Your task to perform on an android device: turn off improve location accuracy Image 0: 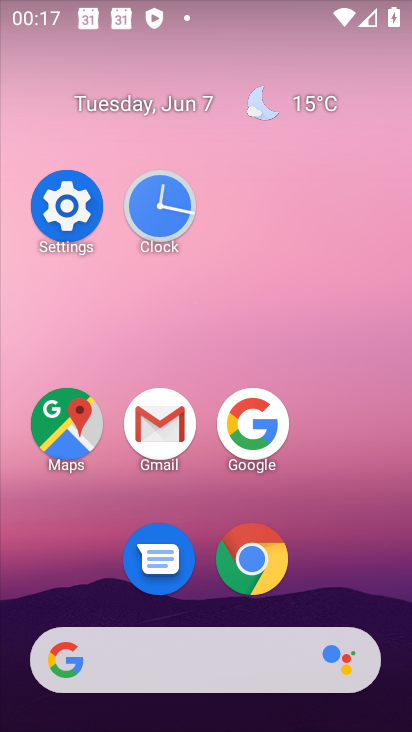
Step 0: click (36, 210)
Your task to perform on an android device: turn off improve location accuracy Image 1: 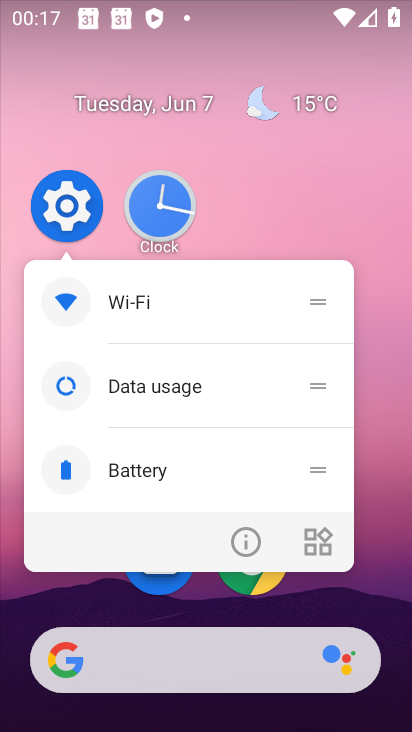
Step 1: click (72, 181)
Your task to perform on an android device: turn off improve location accuracy Image 2: 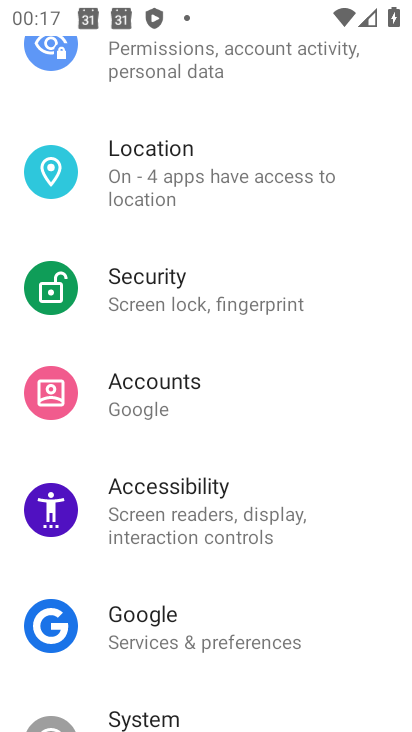
Step 2: click (212, 177)
Your task to perform on an android device: turn off improve location accuracy Image 3: 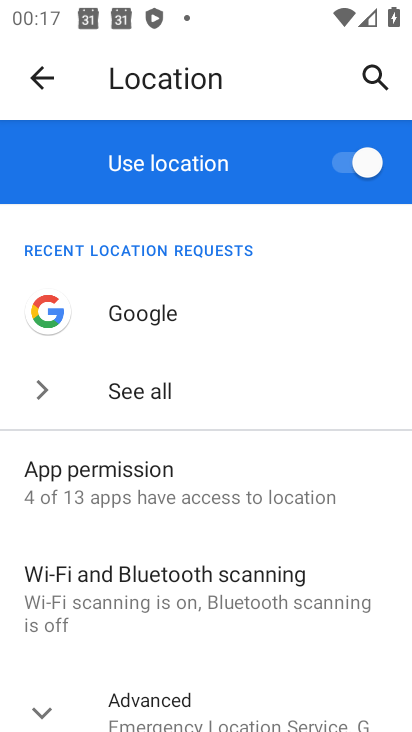
Step 3: drag from (263, 635) to (297, 273)
Your task to perform on an android device: turn off improve location accuracy Image 4: 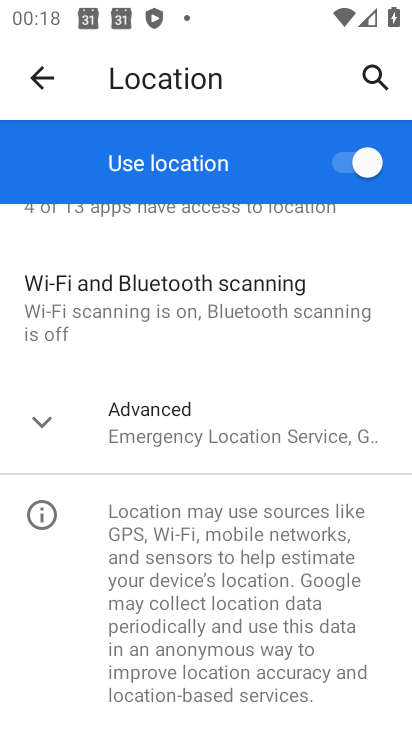
Step 4: click (156, 410)
Your task to perform on an android device: turn off improve location accuracy Image 5: 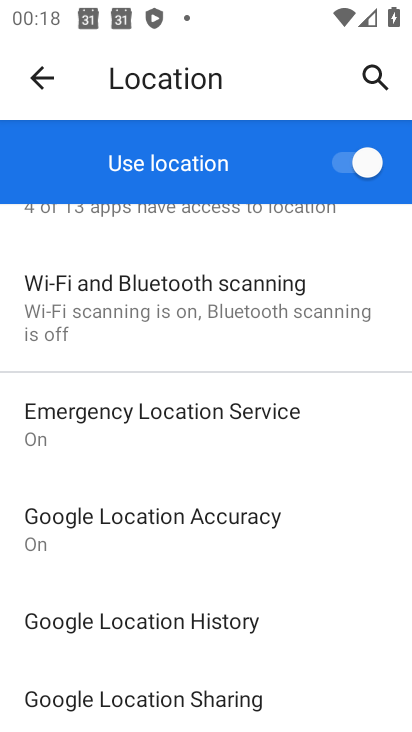
Step 5: click (218, 512)
Your task to perform on an android device: turn off improve location accuracy Image 6: 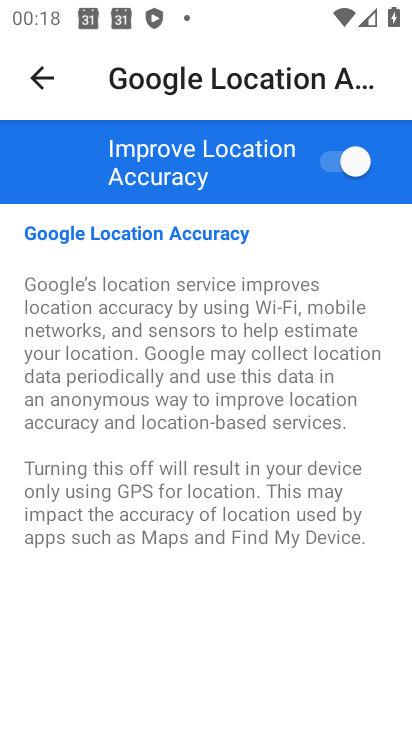
Step 6: click (344, 165)
Your task to perform on an android device: turn off improve location accuracy Image 7: 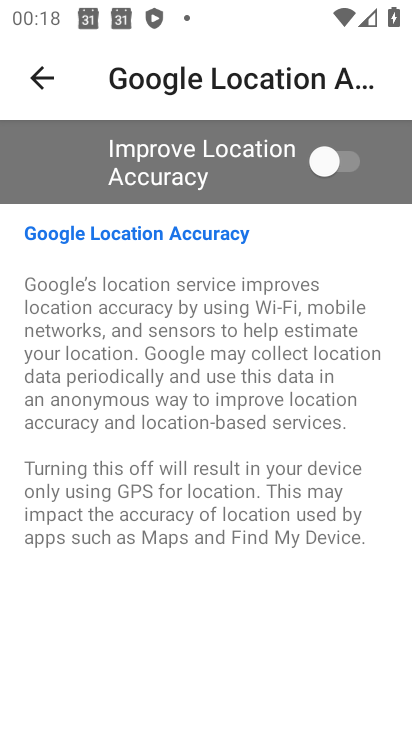
Step 7: task complete